Your task to perform on an android device: add a label to a message in the gmail app Image 0: 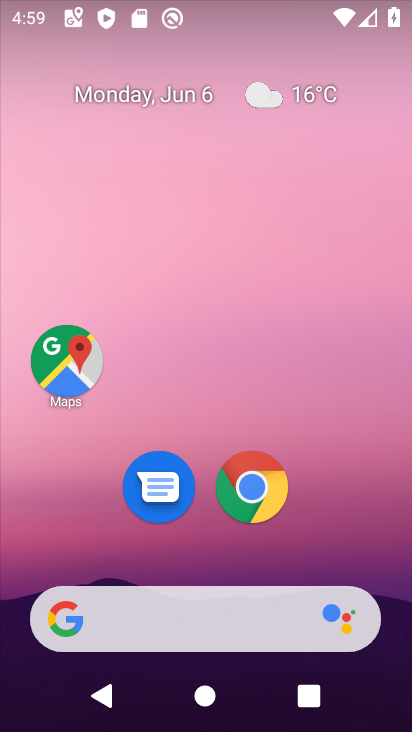
Step 0: drag from (296, 538) to (346, 59)
Your task to perform on an android device: add a label to a message in the gmail app Image 1: 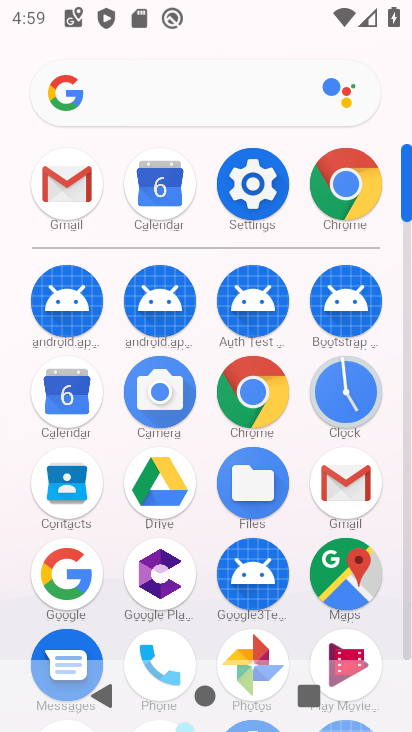
Step 1: click (79, 196)
Your task to perform on an android device: add a label to a message in the gmail app Image 2: 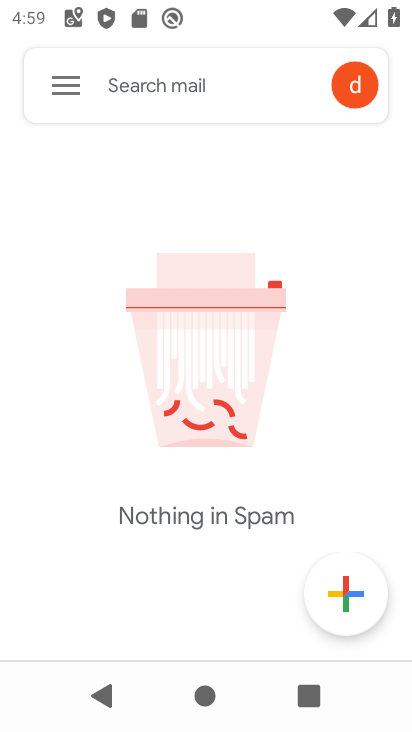
Step 2: click (77, 87)
Your task to perform on an android device: add a label to a message in the gmail app Image 3: 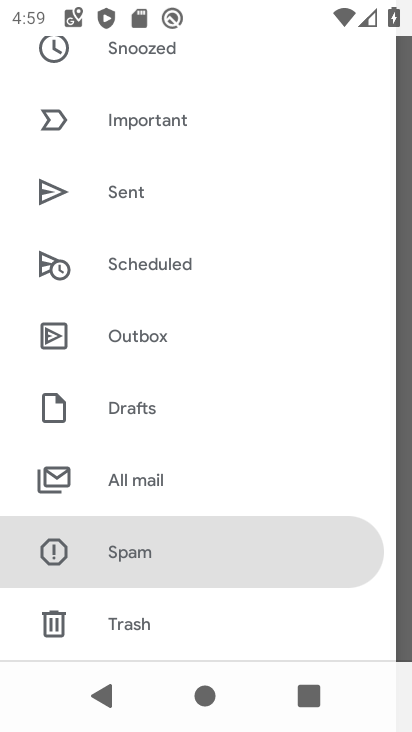
Step 3: click (141, 471)
Your task to perform on an android device: add a label to a message in the gmail app Image 4: 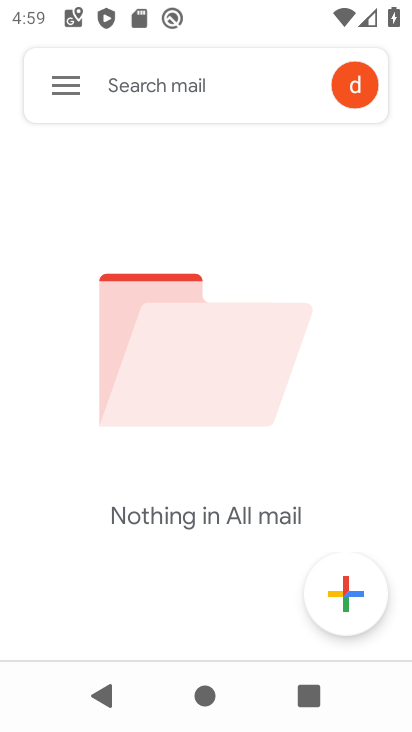
Step 4: task complete